Your task to perform on an android device: change the clock display to analog Image 0: 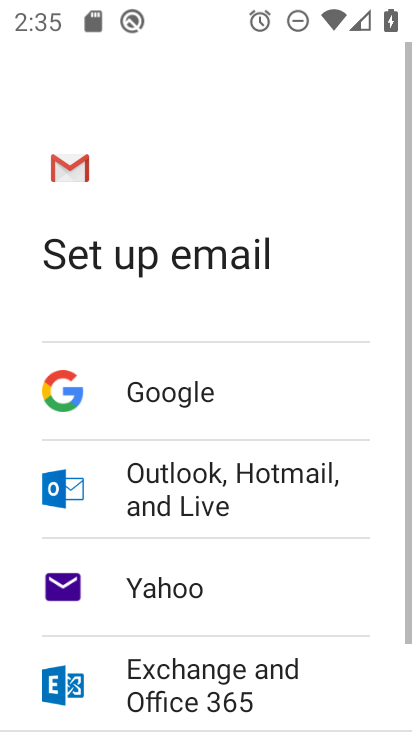
Step 0: press home button
Your task to perform on an android device: change the clock display to analog Image 1: 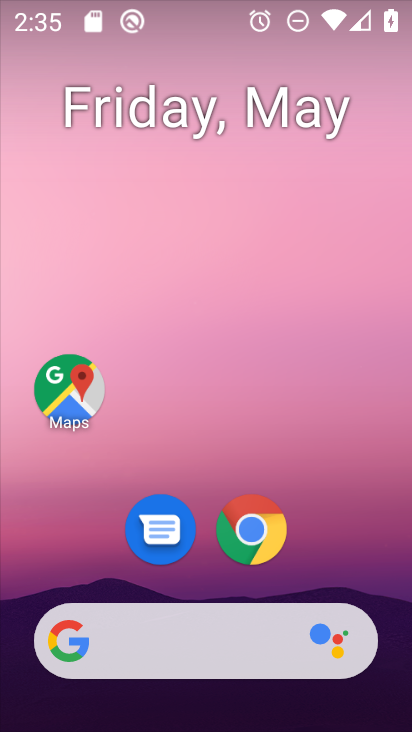
Step 1: drag from (390, 665) to (337, 359)
Your task to perform on an android device: change the clock display to analog Image 2: 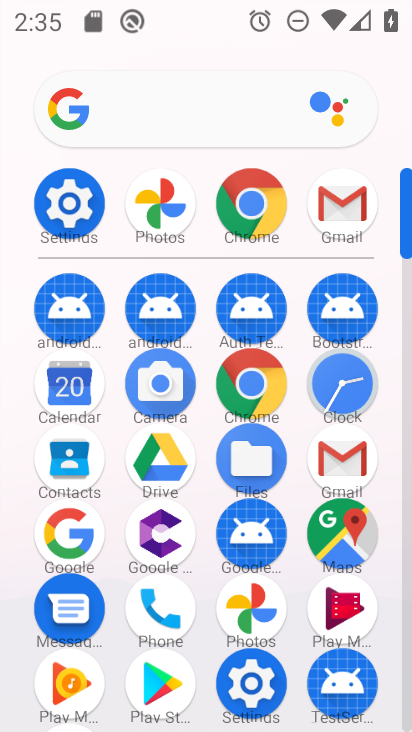
Step 2: click (256, 685)
Your task to perform on an android device: change the clock display to analog Image 3: 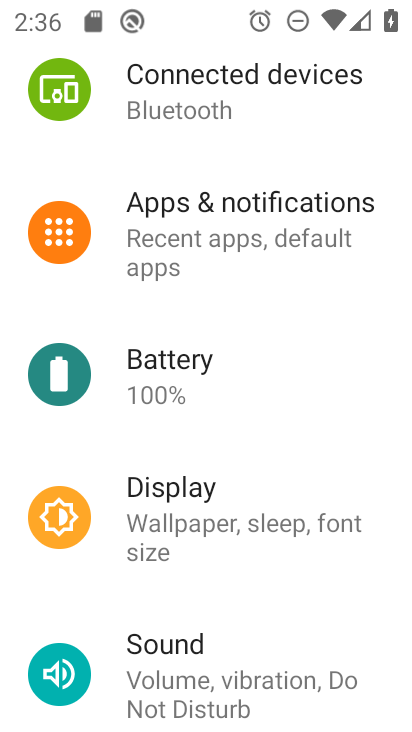
Step 3: click (186, 510)
Your task to perform on an android device: change the clock display to analog Image 4: 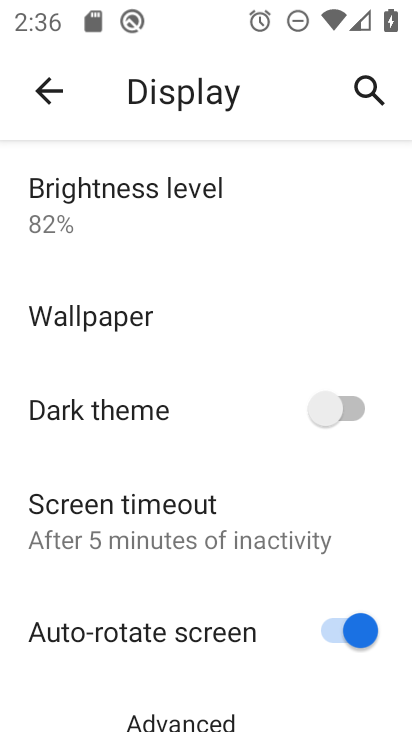
Step 4: drag from (140, 683) to (135, 364)
Your task to perform on an android device: change the clock display to analog Image 5: 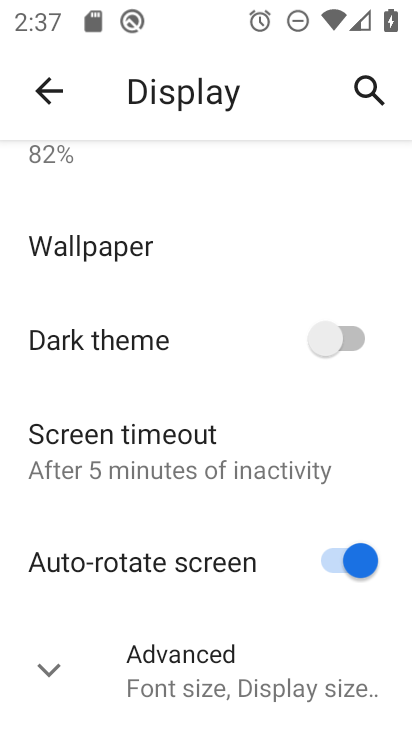
Step 5: click (64, 665)
Your task to perform on an android device: change the clock display to analog Image 6: 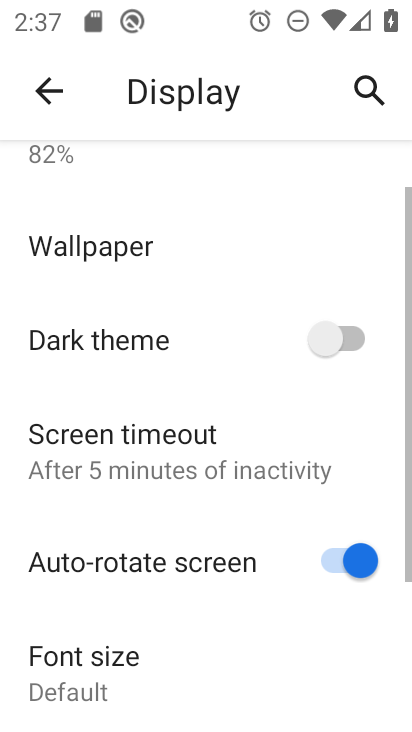
Step 6: drag from (206, 665) to (158, 300)
Your task to perform on an android device: change the clock display to analog Image 7: 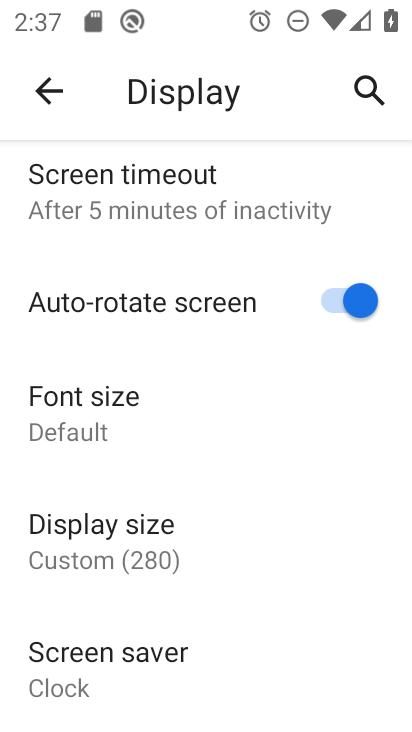
Step 7: drag from (258, 693) to (221, 489)
Your task to perform on an android device: change the clock display to analog Image 8: 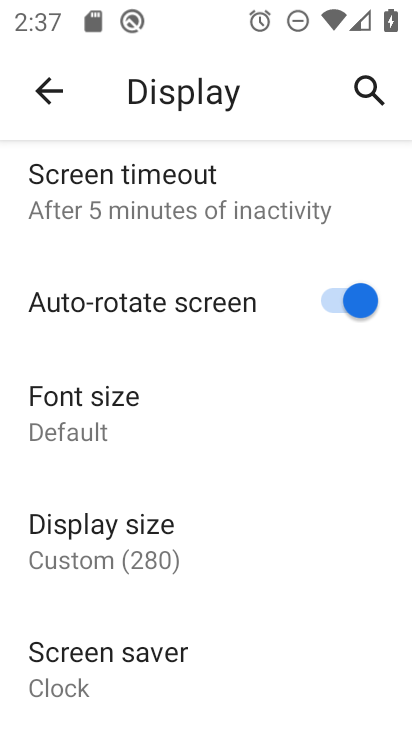
Step 8: press home button
Your task to perform on an android device: change the clock display to analog Image 9: 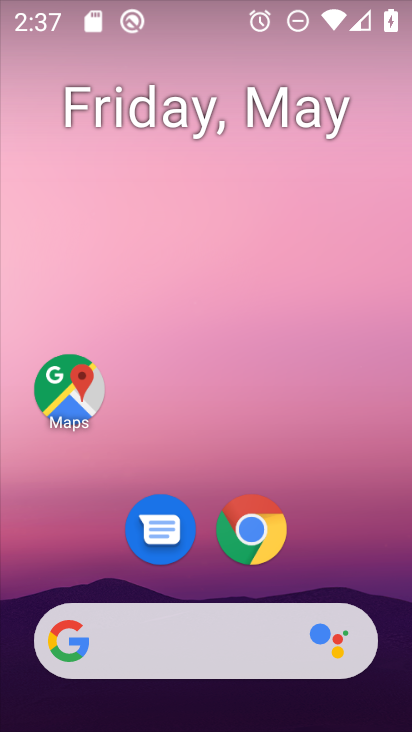
Step 9: drag from (347, 411) to (326, 279)
Your task to perform on an android device: change the clock display to analog Image 10: 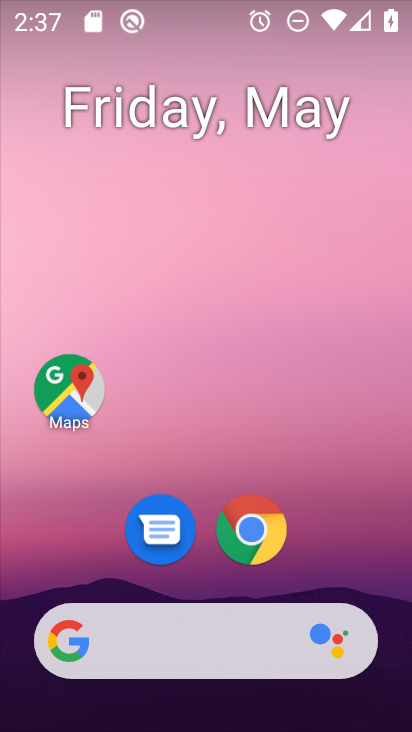
Step 10: drag from (366, 444) to (349, 332)
Your task to perform on an android device: change the clock display to analog Image 11: 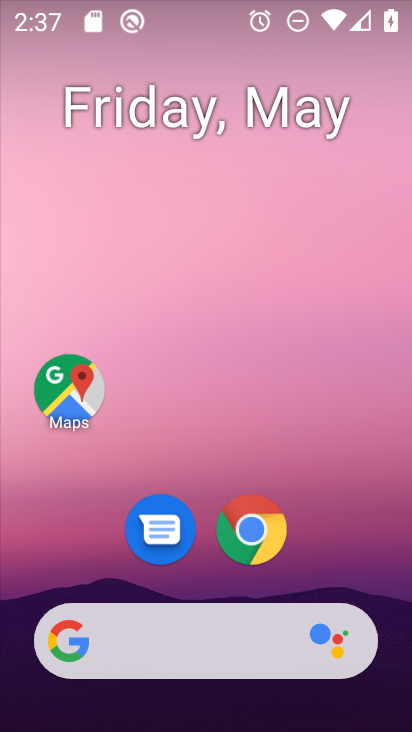
Step 11: drag from (397, 696) to (319, 117)
Your task to perform on an android device: change the clock display to analog Image 12: 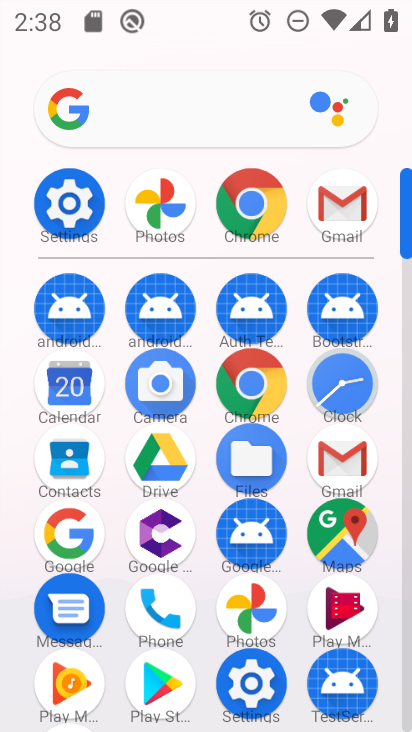
Step 12: click (334, 386)
Your task to perform on an android device: change the clock display to analog Image 13: 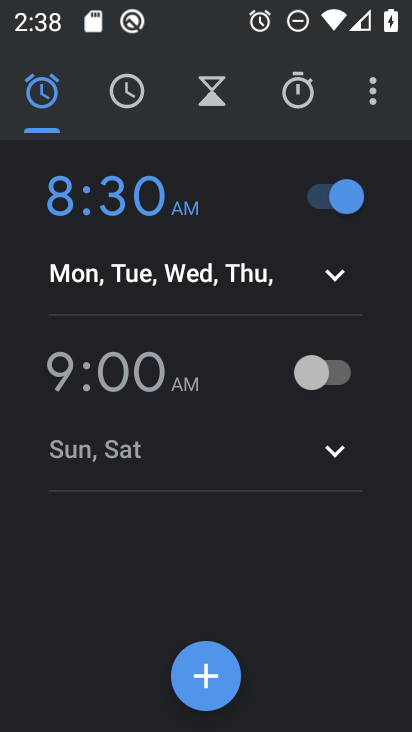
Step 13: click (377, 87)
Your task to perform on an android device: change the clock display to analog Image 14: 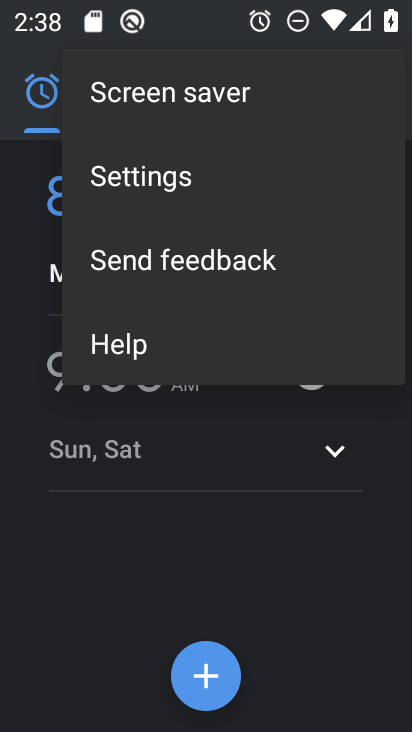
Step 14: click (137, 183)
Your task to perform on an android device: change the clock display to analog Image 15: 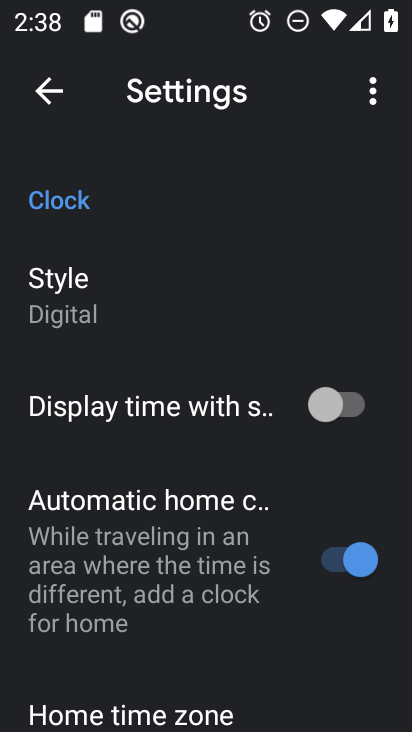
Step 15: click (55, 311)
Your task to perform on an android device: change the clock display to analog Image 16: 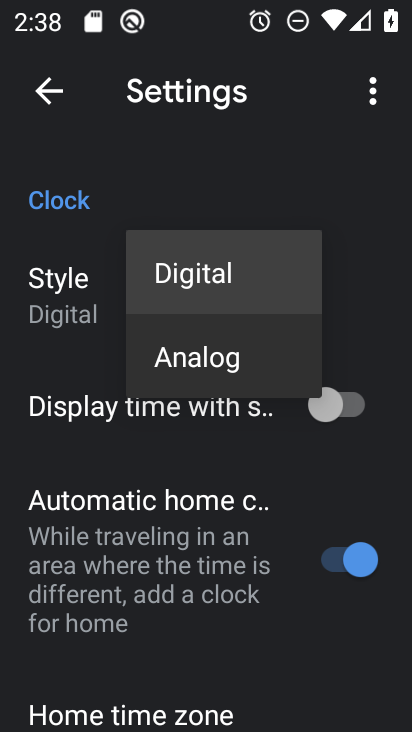
Step 16: click (170, 356)
Your task to perform on an android device: change the clock display to analog Image 17: 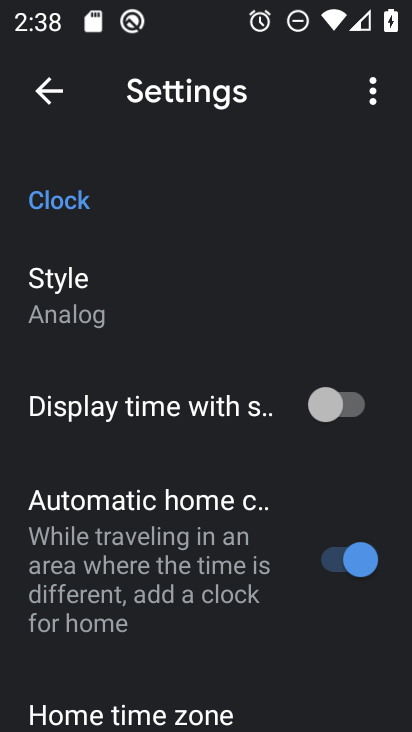
Step 17: task complete